Your task to perform on an android device: Open Chrome and go to settings Image 0: 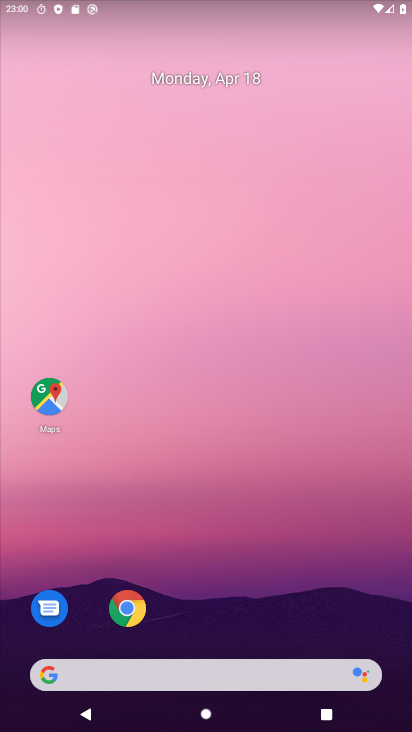
Step 0: click (126, 607)
Your task to perform on an android device: Open Chrome and go to settings Image 1: 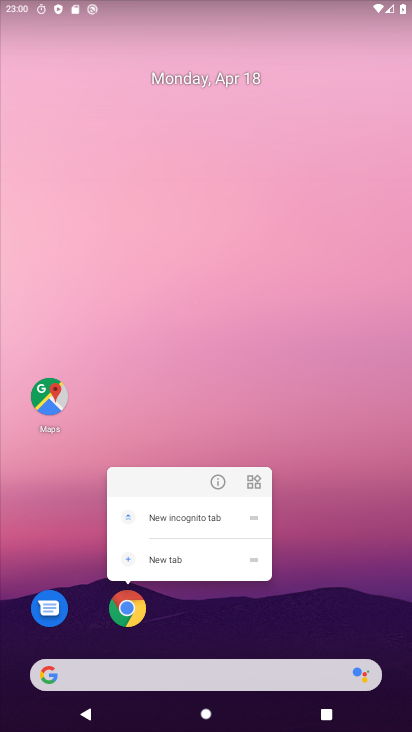
Step 1: click (187, 639)
Your task to perform on an android device: Open Chrome and go to settings Image 2: 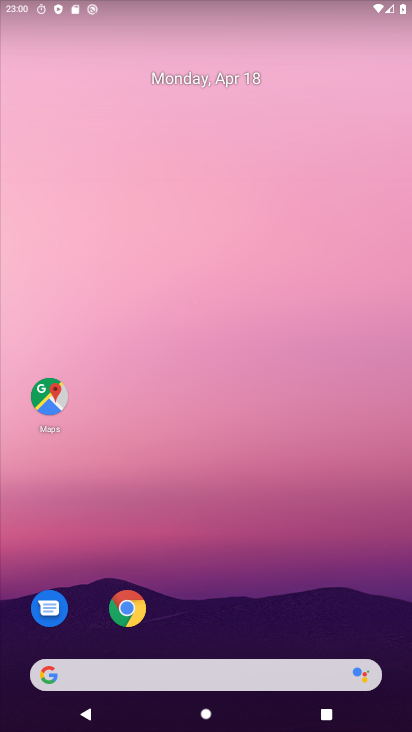
Step 2: click (125, 610)
Your task to perform on an android device: Open Chrome and go to settings Image 3: 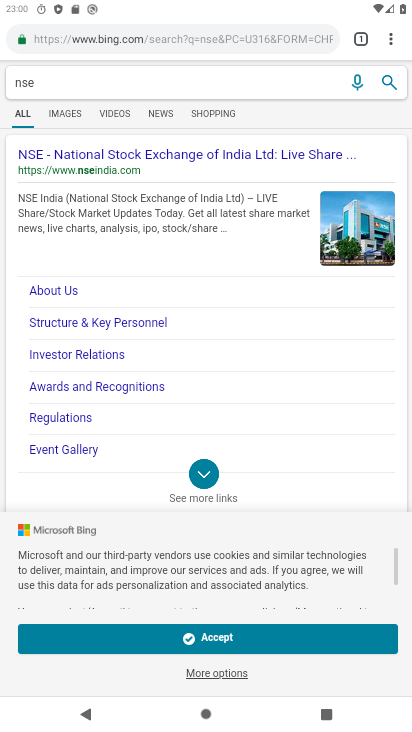
Step 3: click (388, 41)
Your task to perform on an android device: Open Chrome and go to settings Image 4: 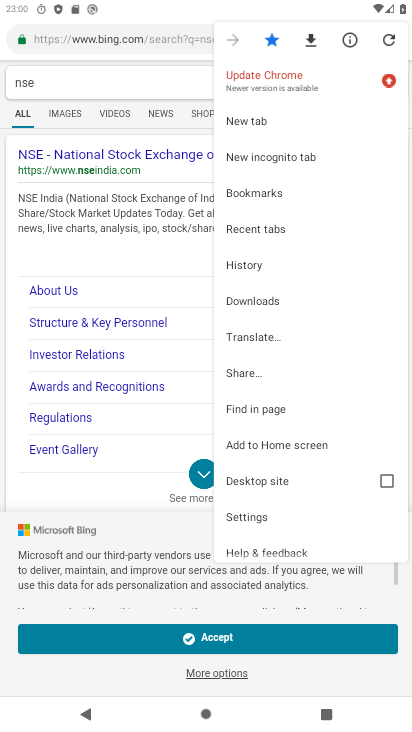
Step 4: click (251, 515)
Your task to perform on an android device: Open Chrome and go to settings Image 5: 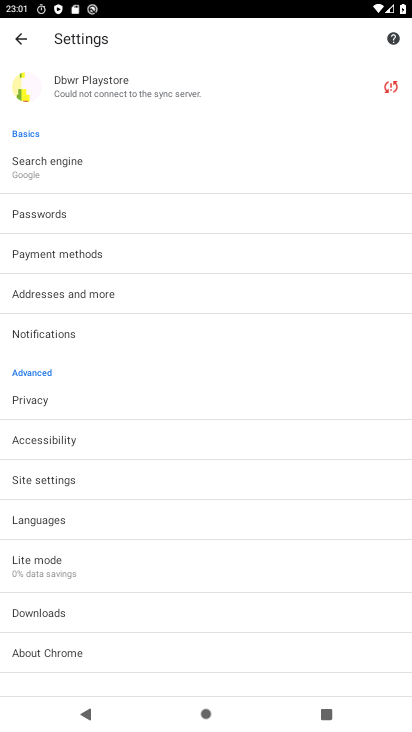
Step 5: task complete